Your task to perform on an android device: turn smart compose on in the gmail app Image 0: 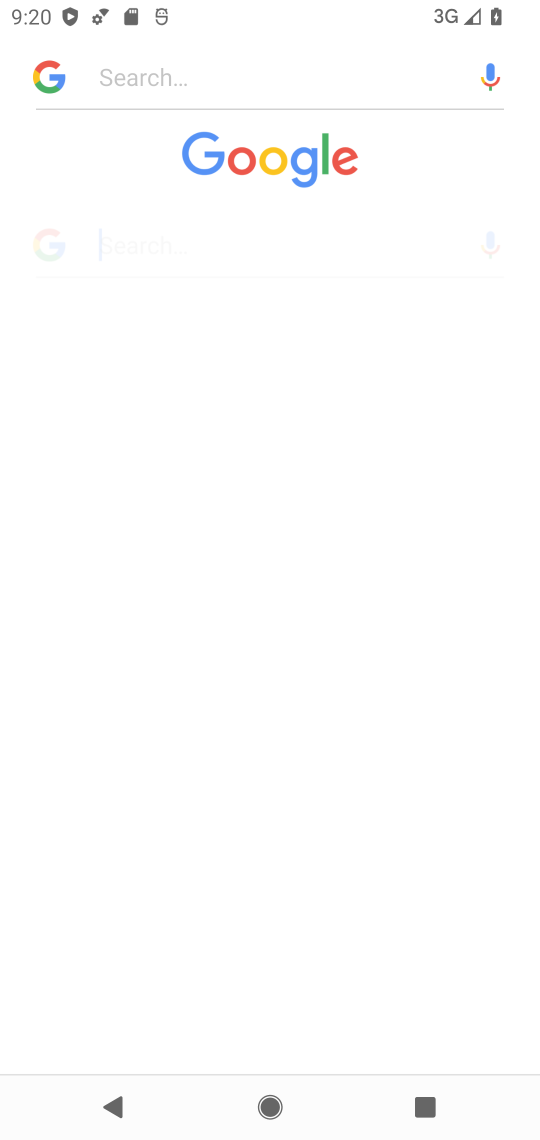
Step 0: press home button
Your task to perform on an android device: turn smart compose on in the gmail app Image 1: 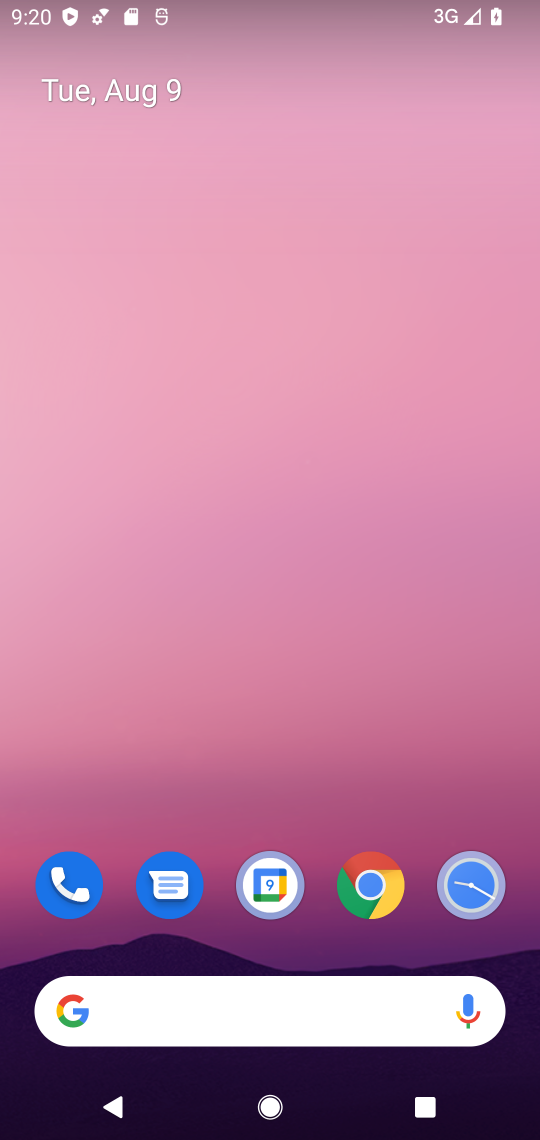
Step 1: drag from (324, 849) to (318, 8)
Your task to perform on an android device: turn smart compose on in the gmail app Image 2: 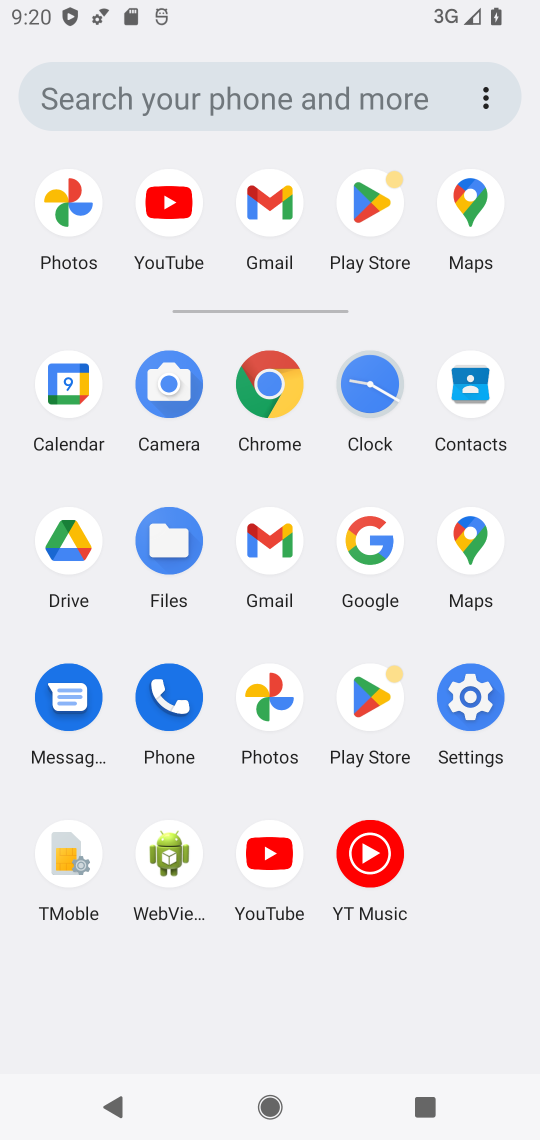
Step 2: click (258, 532)
Your task to perform on an android device: turn smart compose on in the gmail app Image 3: 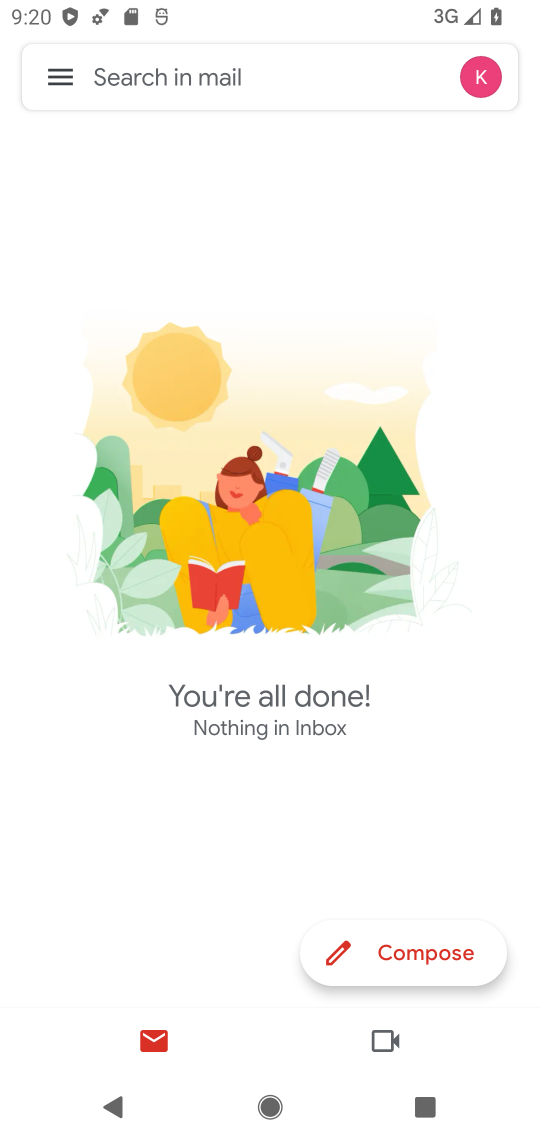
Step 3: click (64, 70)
Your task to perform on an android device: turn smart compose on in the gmail app Image 4: 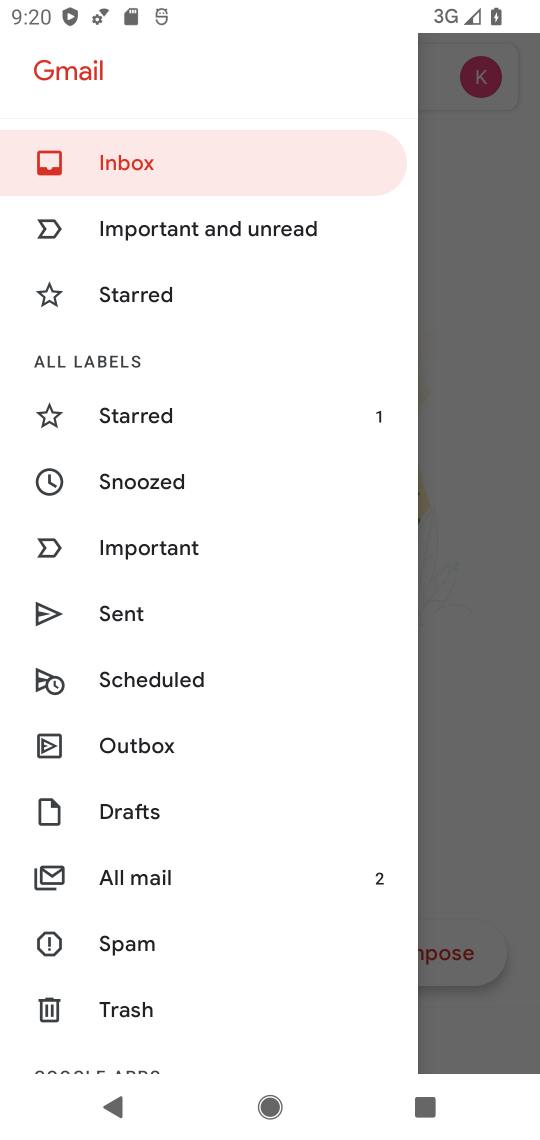
Step 4: drag from (169, 968) to (197, 207)
Your task to perform on an android device: turn smart compose on in the gmail app Image 5: 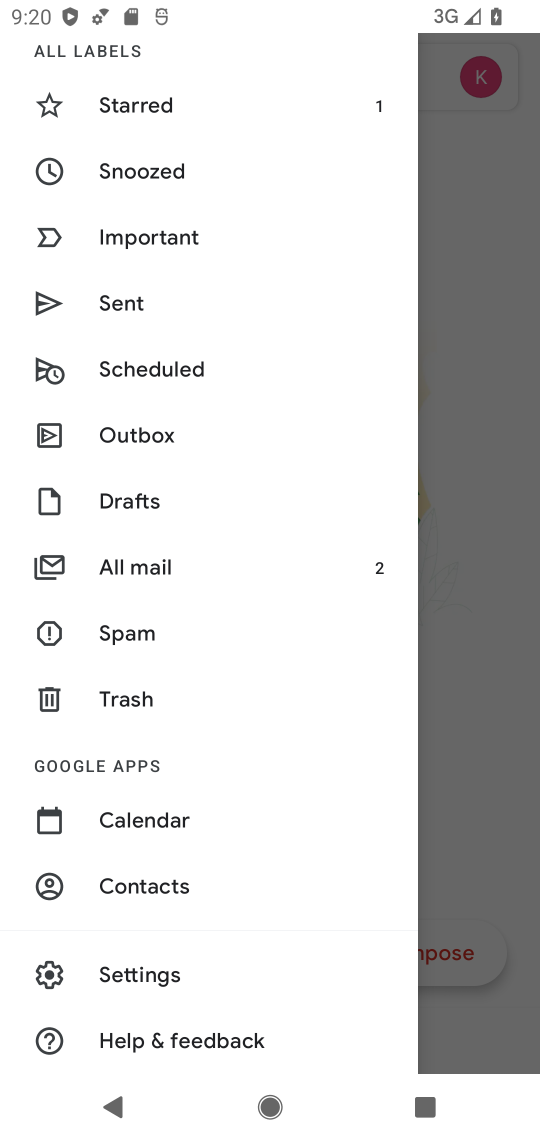
Step 5: click (188, 971)
Your task to perform on an android device: turn smart compose on in the gmail app Image 6: 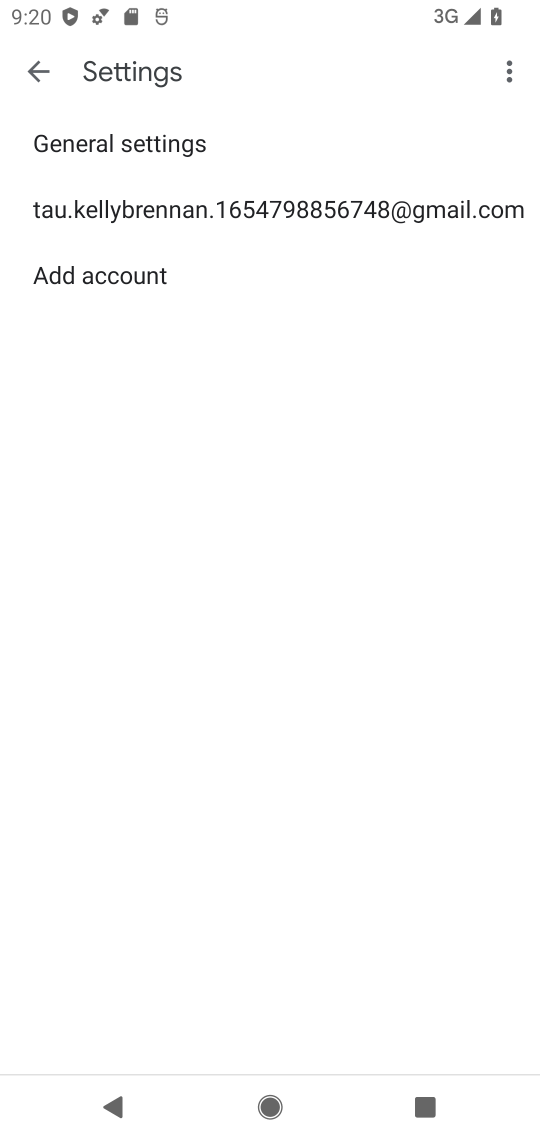
Step 6: click (300, 206)
Your task to perform on an android device: turn smart compose on in the gmail app Image 7: 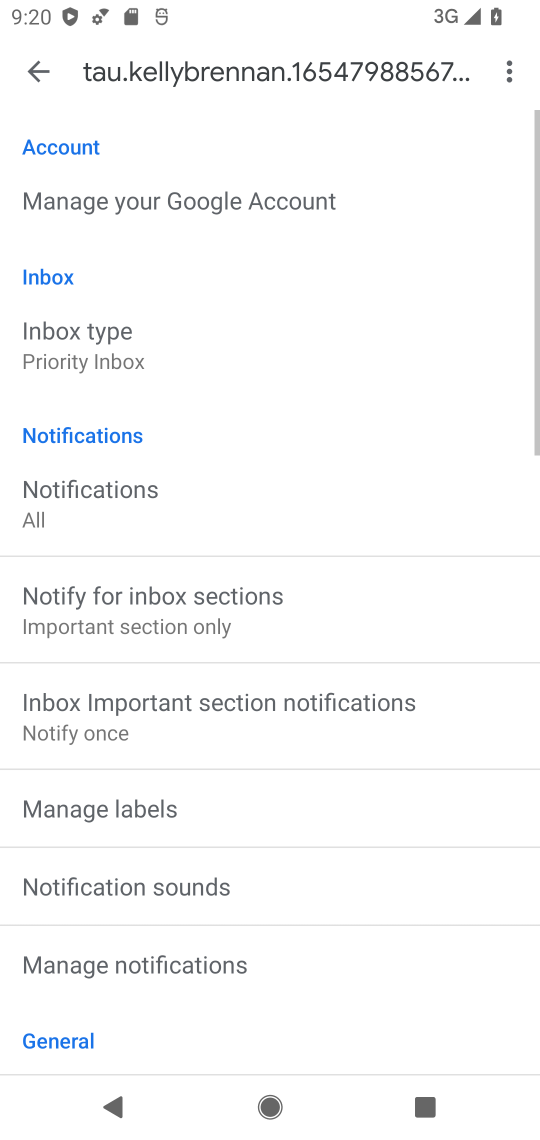
Step 7: task complete